Your task to perform on an android device: Search for the ikea sjalv lamp Image 0: 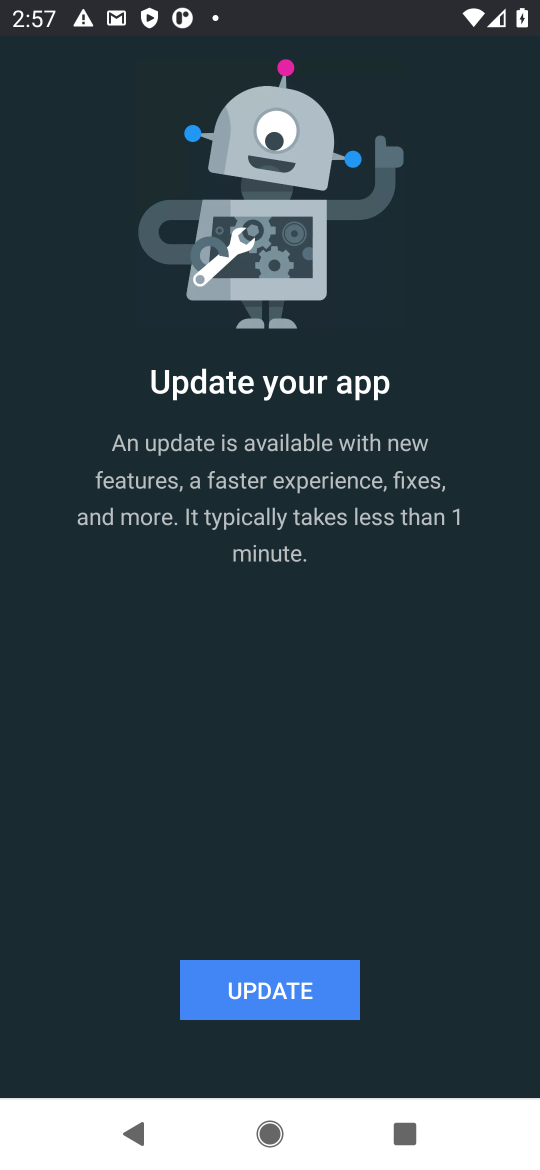
Step 0: press home button
Your task to perform on an android device: Search for the ikea sjalv lamp Image 1: 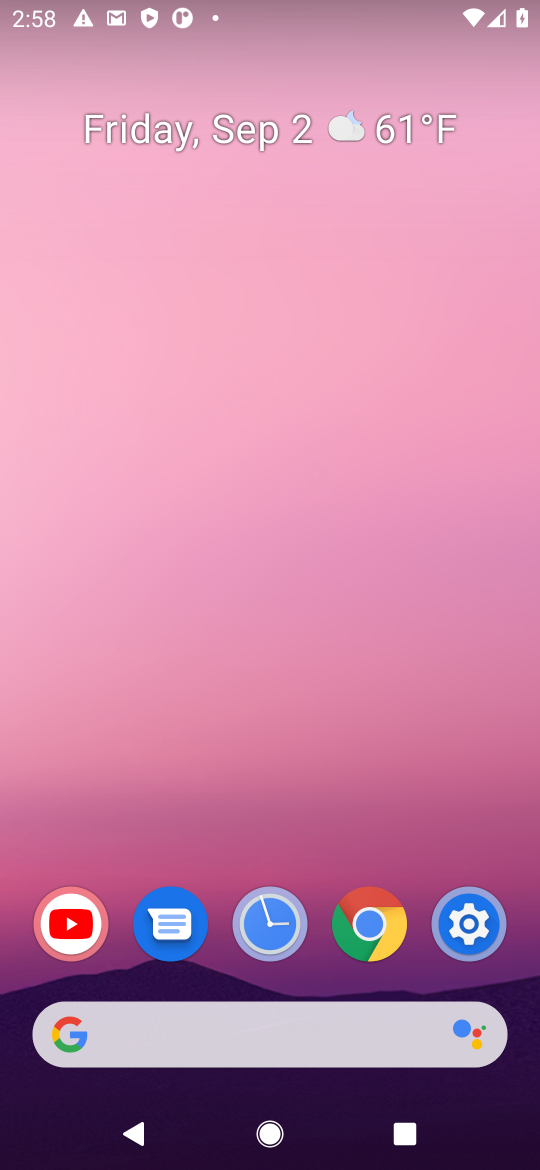
Step 1: click (368, 1043)
Your task to perform on an android device: Search for the ikea sjalv lamp Image 2: 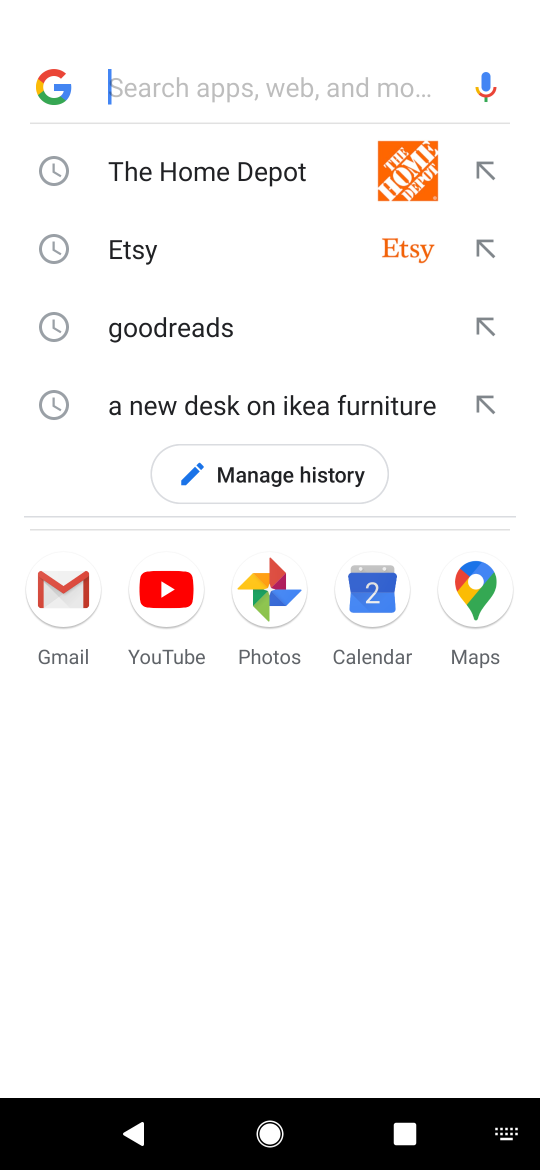
Step 2: press enter
Your task to perform on an android device: Search for the ikea sjalv lamp Image 3: 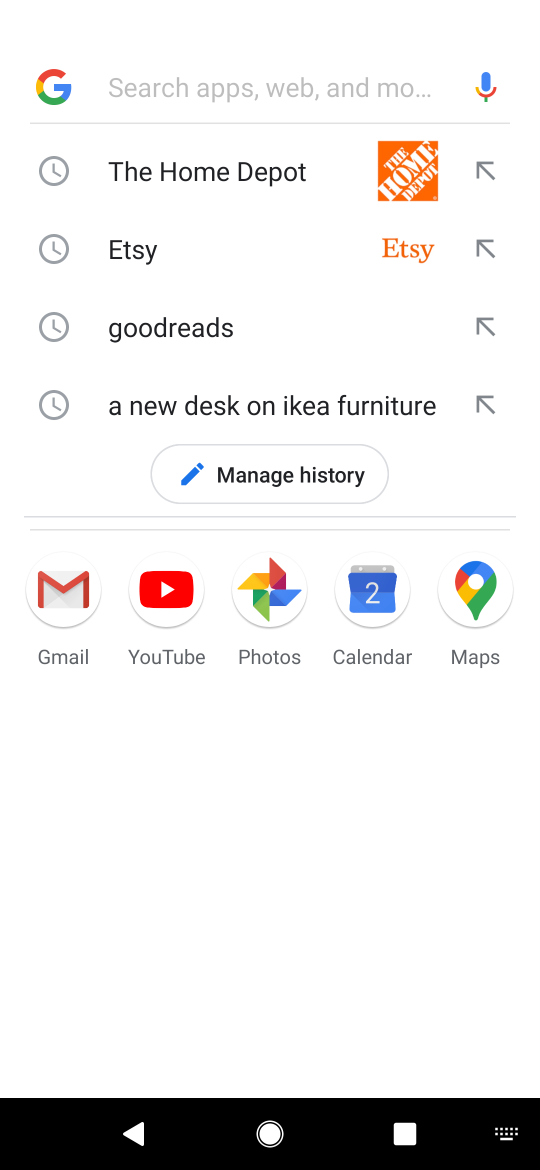
Step 3: type " ikea sjalv lamp"
Your task to perform on an android device: Search for the ikea sjalv lamp Image 4: 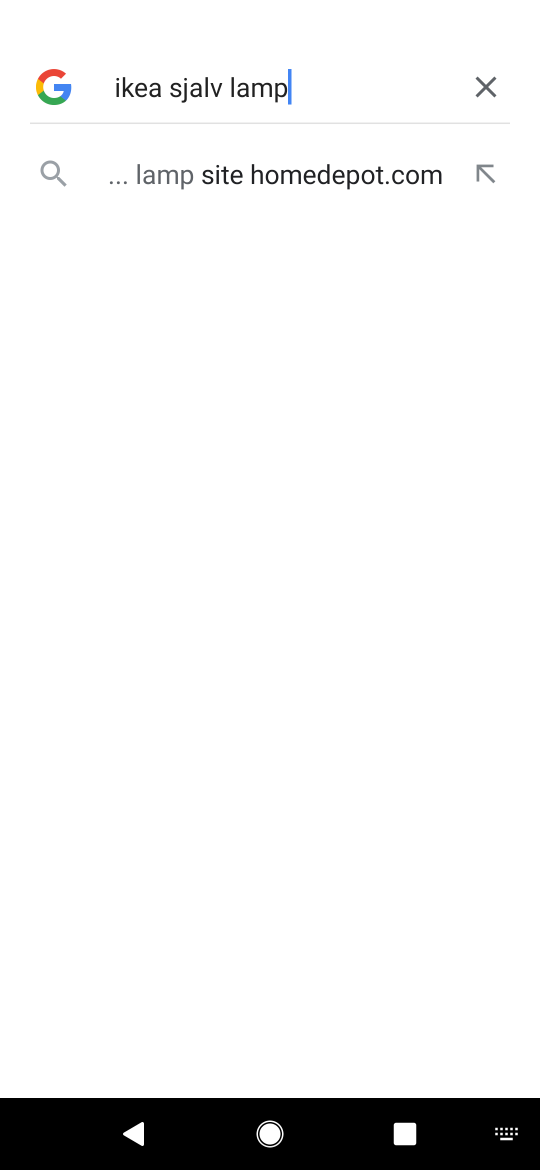
Step 4: task complete